Your task to perform on an android device: Is it going to rain today? Image 0: 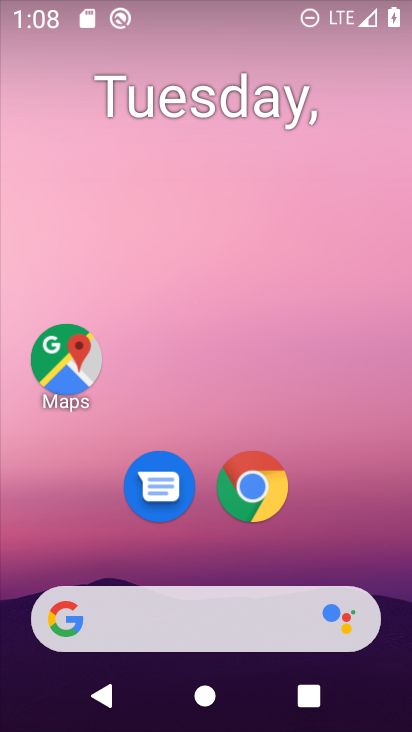
Step 0: click (238, 639)
Your task to perform on an android device: Is it going to rain today? Image 1: 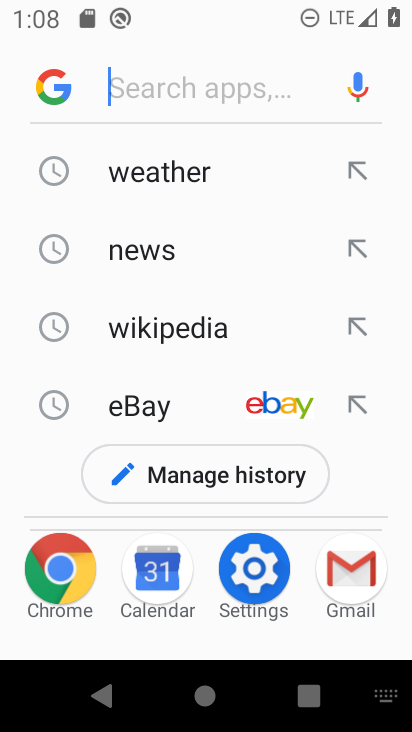
Step 1: click (184, 179)
Your task to perform on an android device: Is it going to rain today? Image 2: 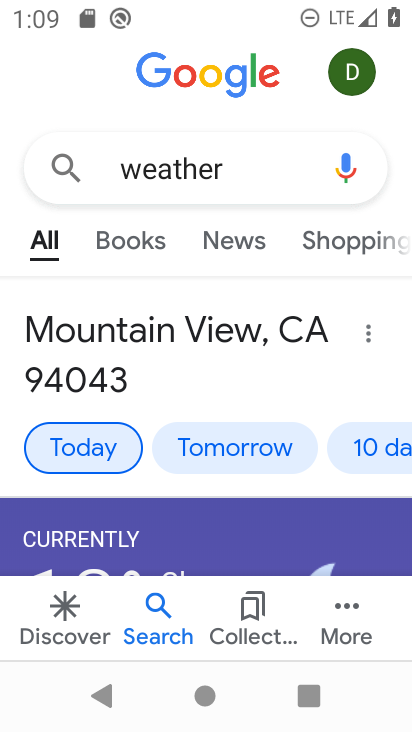
Step 2: task complete